Your task to perform on an android device: Open sound settings Image 0: 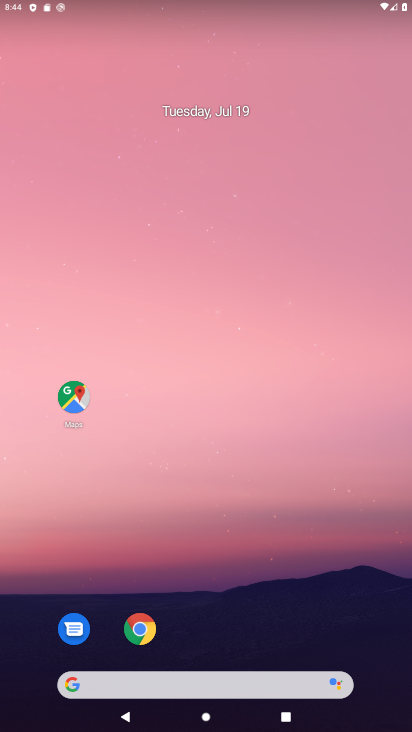
Step 0: drag from (212, 304) to (218, 165)
Your task to perform on an android device: Open sound settings Image 1: 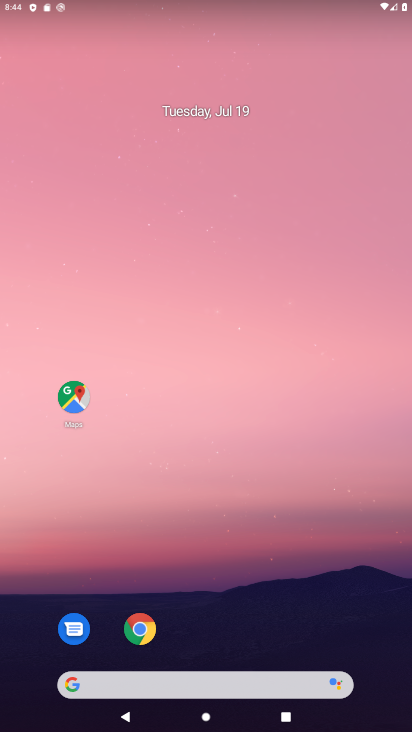
Step 1: drag from (227, 636) to (247, 218)
Your task to perform on an android device: Open sound settings Image 2: 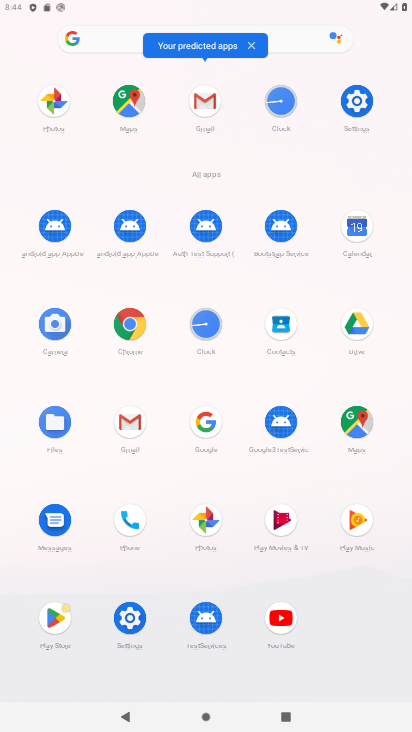
Step 2: click (125, 625)
Your task to perform on an android device: Open sound settings Image 3: 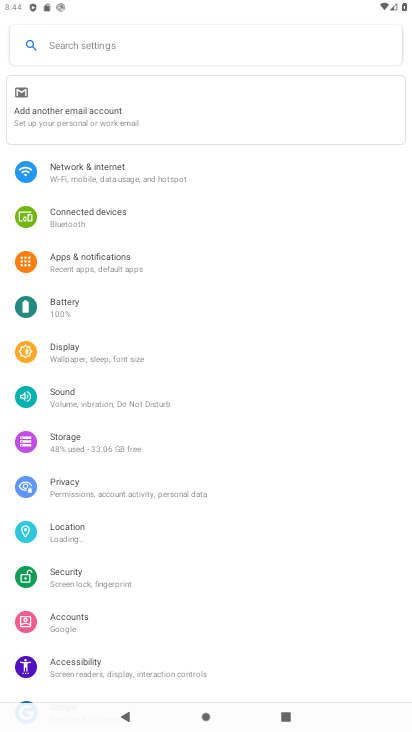
Step 3: click (83, 400)
Your task to perform on an android device: Open sound settings Image 4: 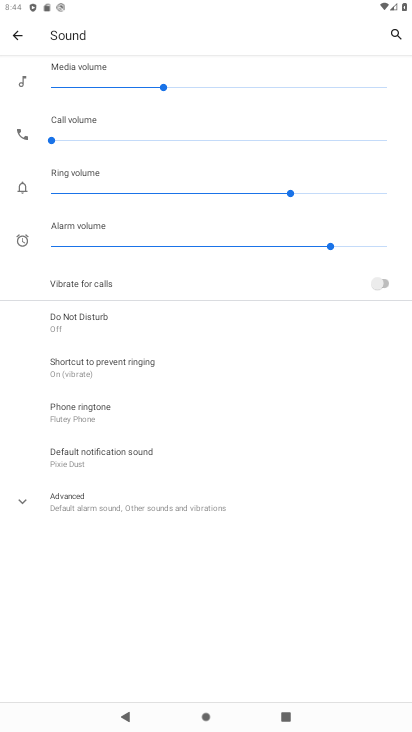
Step 4: task complete